Your task to perform on an android device: Show me popular games on the Play Store Image 0: 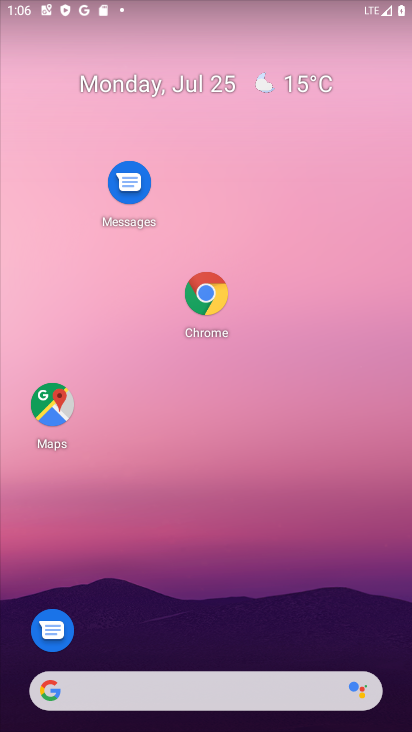
Step 0: drag from (365, 615) to (181, 73)
Your task to perform on an android device: Show me popular games on the Play Store Image 1: 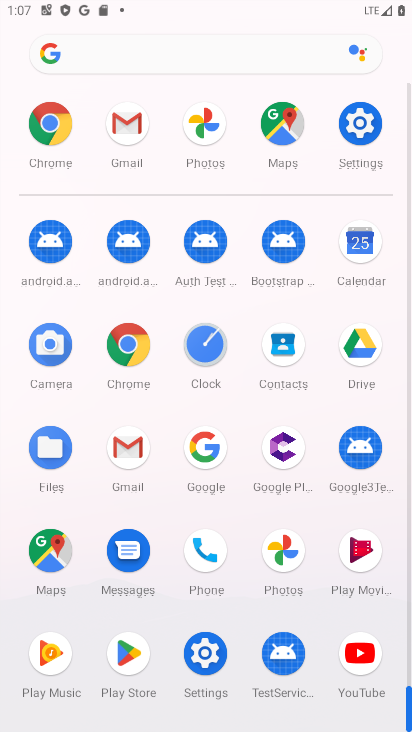
Step 1: click (135, 646)
Your task to perform on an android device: Show me popular games on the Play Store Image 2: 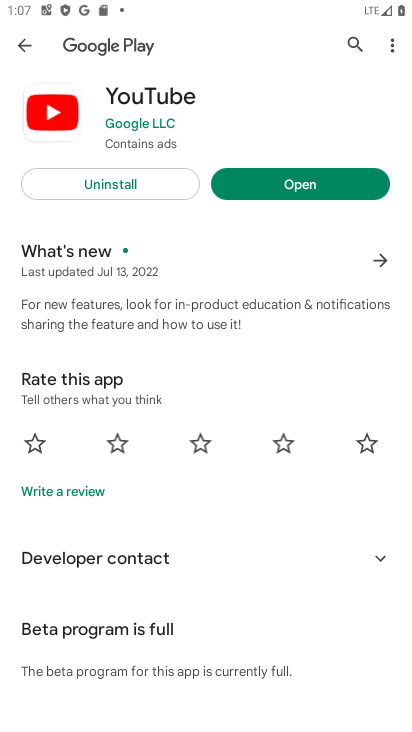
Step 2: click (345, 36)
Your task to perform on an android device: Show me popular games on the Play Store Image 3: 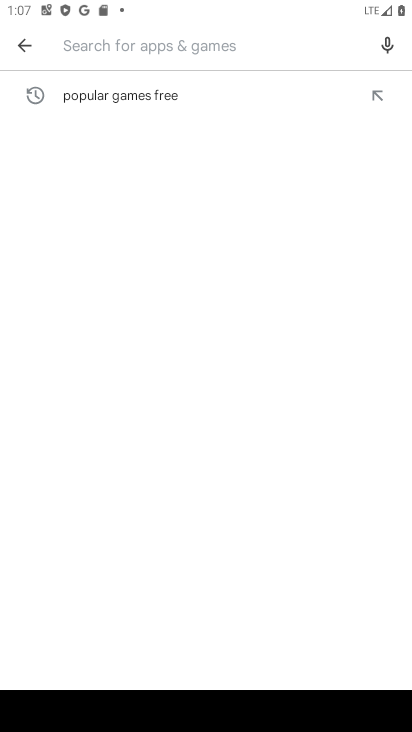
Step 3: type "popular games"
Your task to perform on an android device: Show me popular games on the Play Store Image 4: 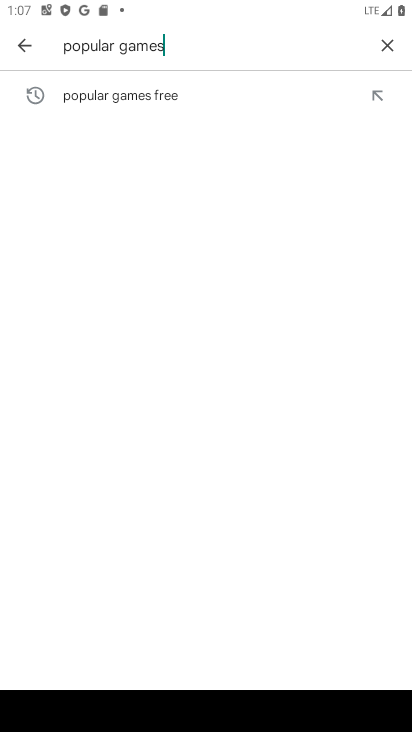
Step 4: type ""
Your task to perform on an android device: Show me popular games on the Play Store Image 5: 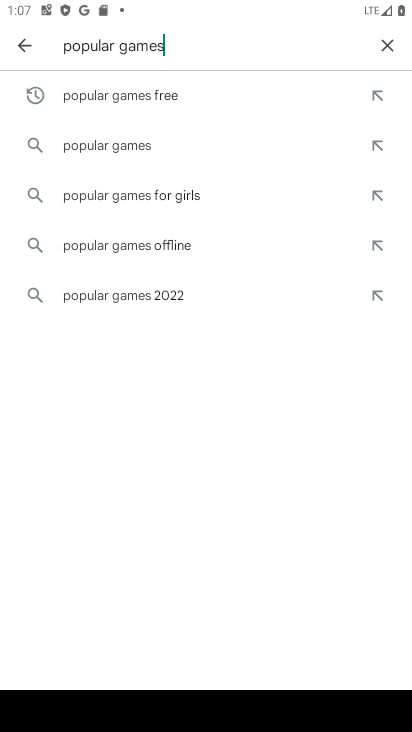
Step 5: click (130, 103)
Your task to perform on an android device: Show me popular games on the Play Store Image 6: 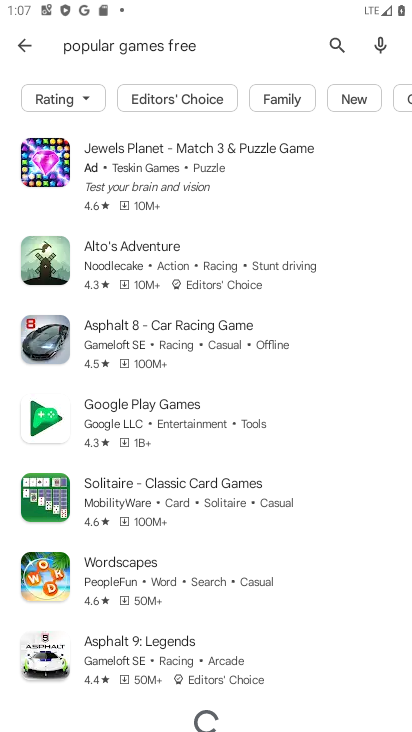
Step 6: task complete